Your task to perform on an android device: read, delete, or share a saved page in the chrome app Image 0: 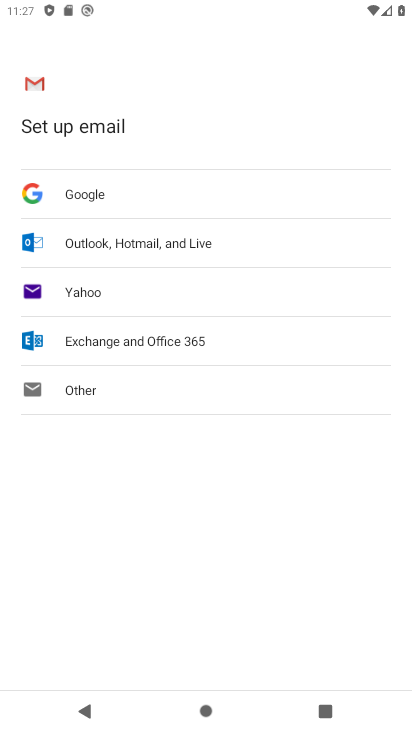
Step 0: click (293, 233)
Your task to perform on an android device: read, delete, or share a saved page in the chrome app Image 1: 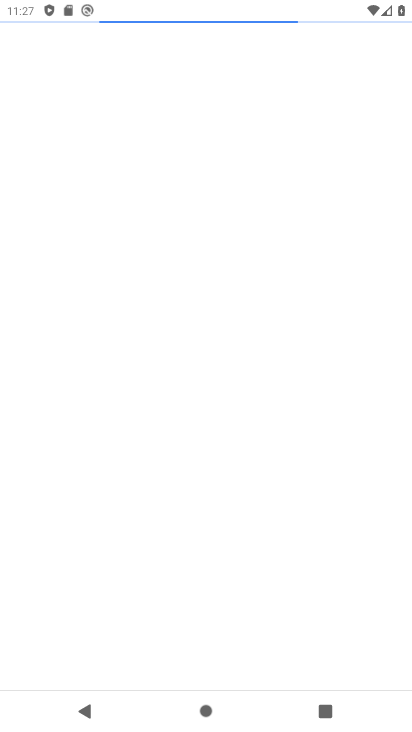
Step 1: press home button
Your task to perform on an android device: read, delete, or share a saved page in the chrome app Image 2: 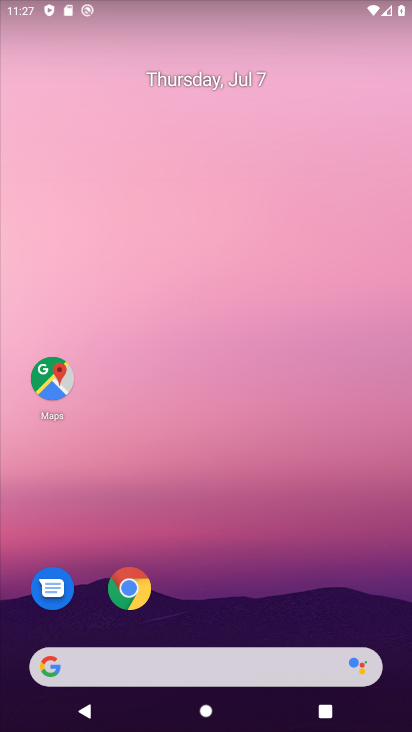
Step 2: click (123, 596)
Your task to perform on an android device: read, delete, or share a saved page in the chrome app Image 3: 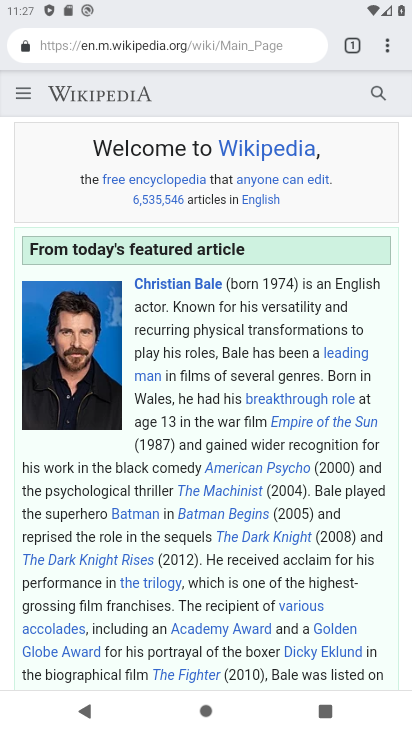
Step 3: click (391, 43)
Your task to perform on an android device: read, delete, or share a saved page in the chrome app Image 4: 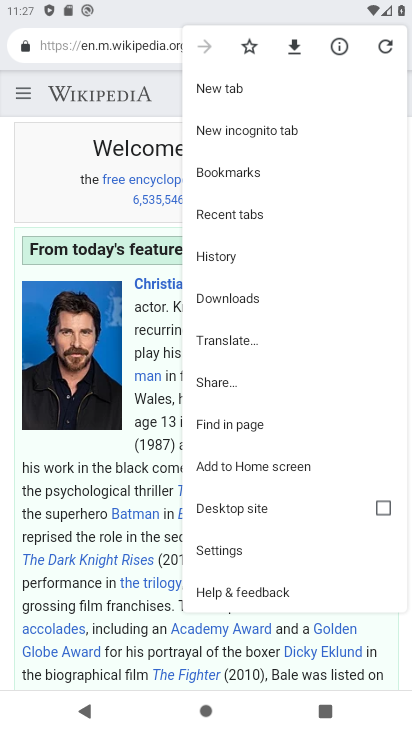
Step 4: click (226, 300)
Your task to perform on an android device: read, delete, or share a saved page in the chrome app Image 5: 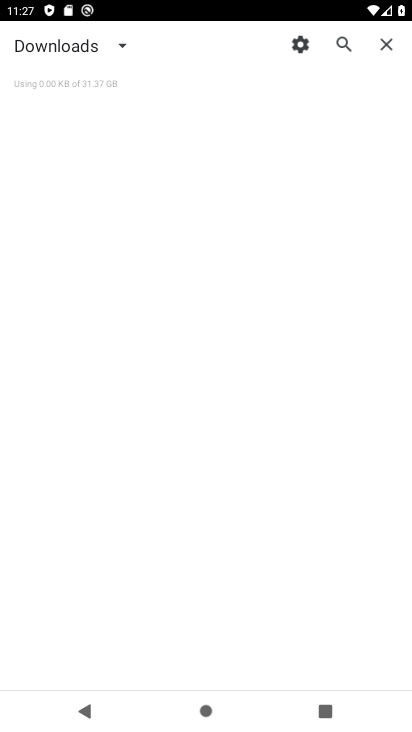
Step 5: click (112, 51)
Your task to perform on an android device: read, delete, or share a saved page in the chrome app Image 6: 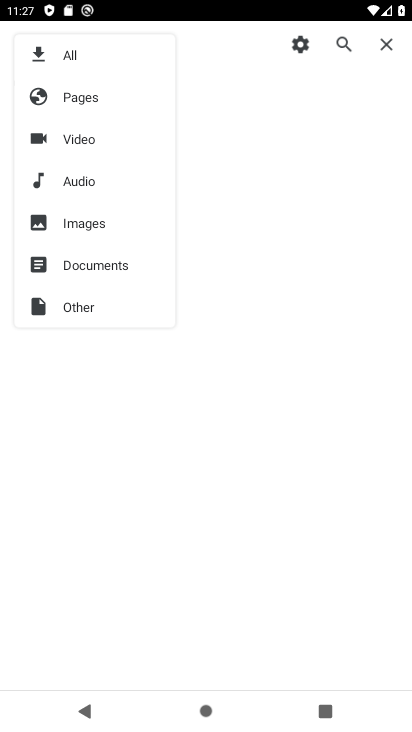
Step 6: click (78, 101)
Your task to perform on an android device: read, delete, or share a saved page in the chrome app Image 7: 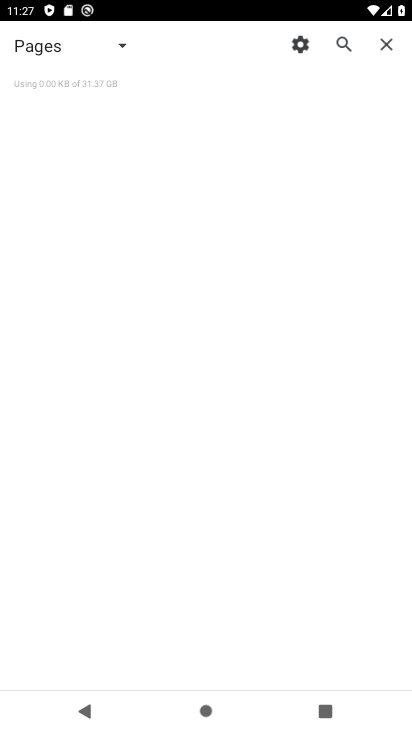
Step 7: task complete